Your task to perform on an android device: turn on improve location accuracy Image 0: 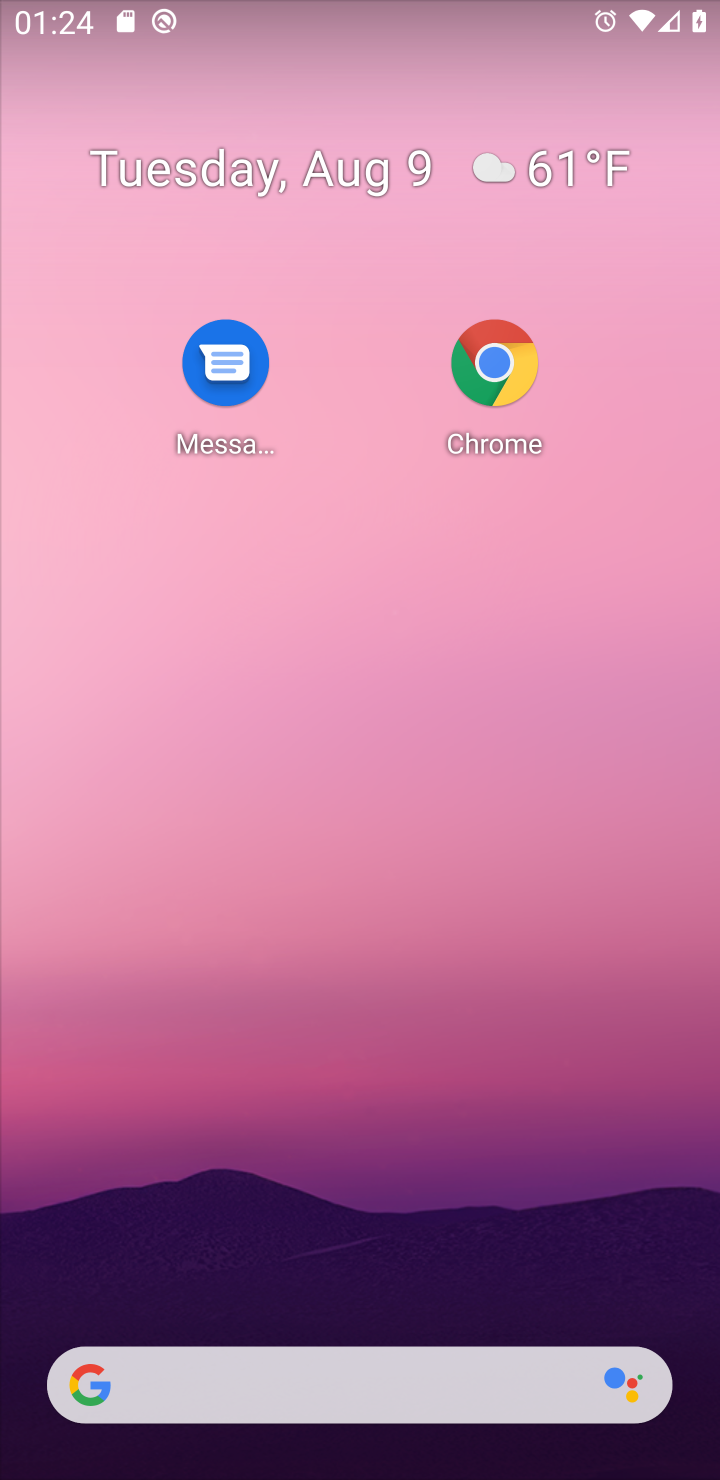
Step 0: press home button
Your task to perform on an android device: turn on improve location accuracy Image 1: 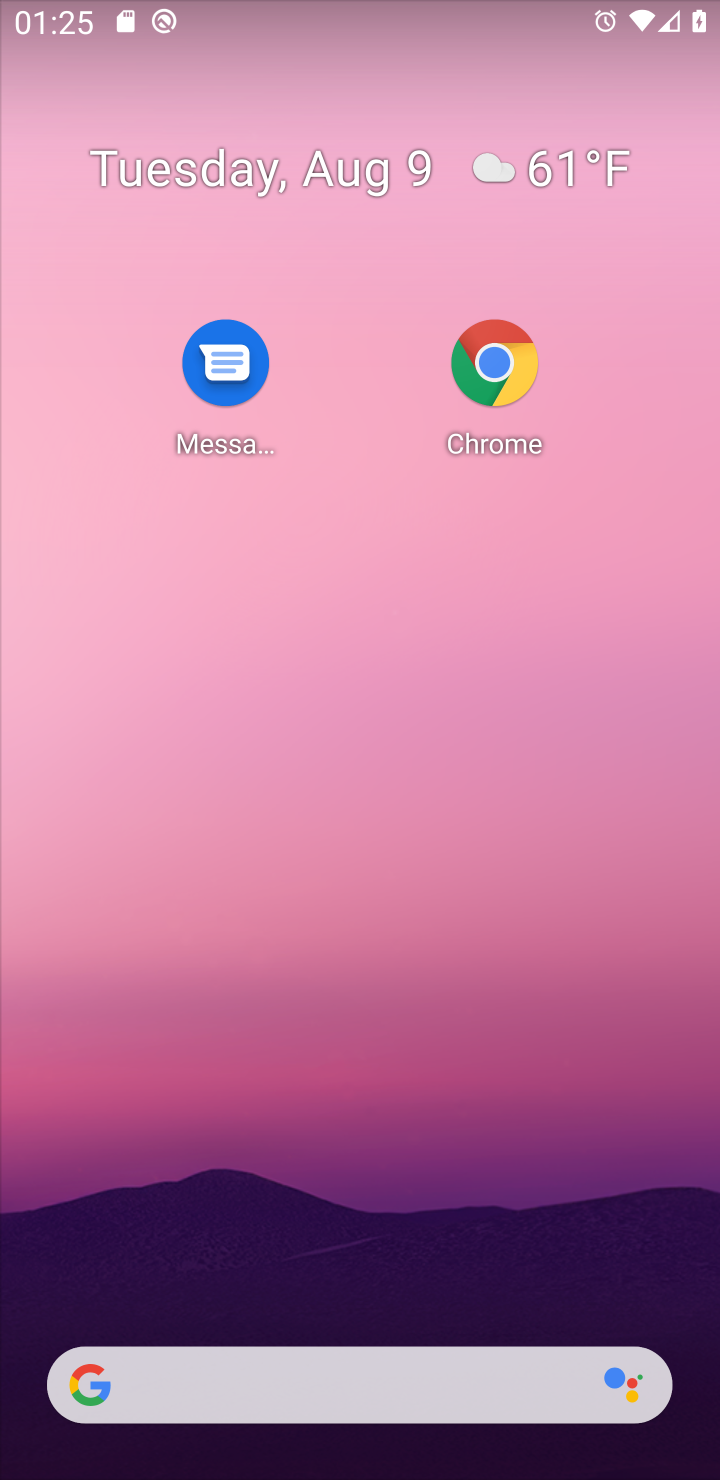
Step 1: drag from (428, 1228) to (447, 232)
Your task to perform on an android device: turn on improve location accuracy Image 2: 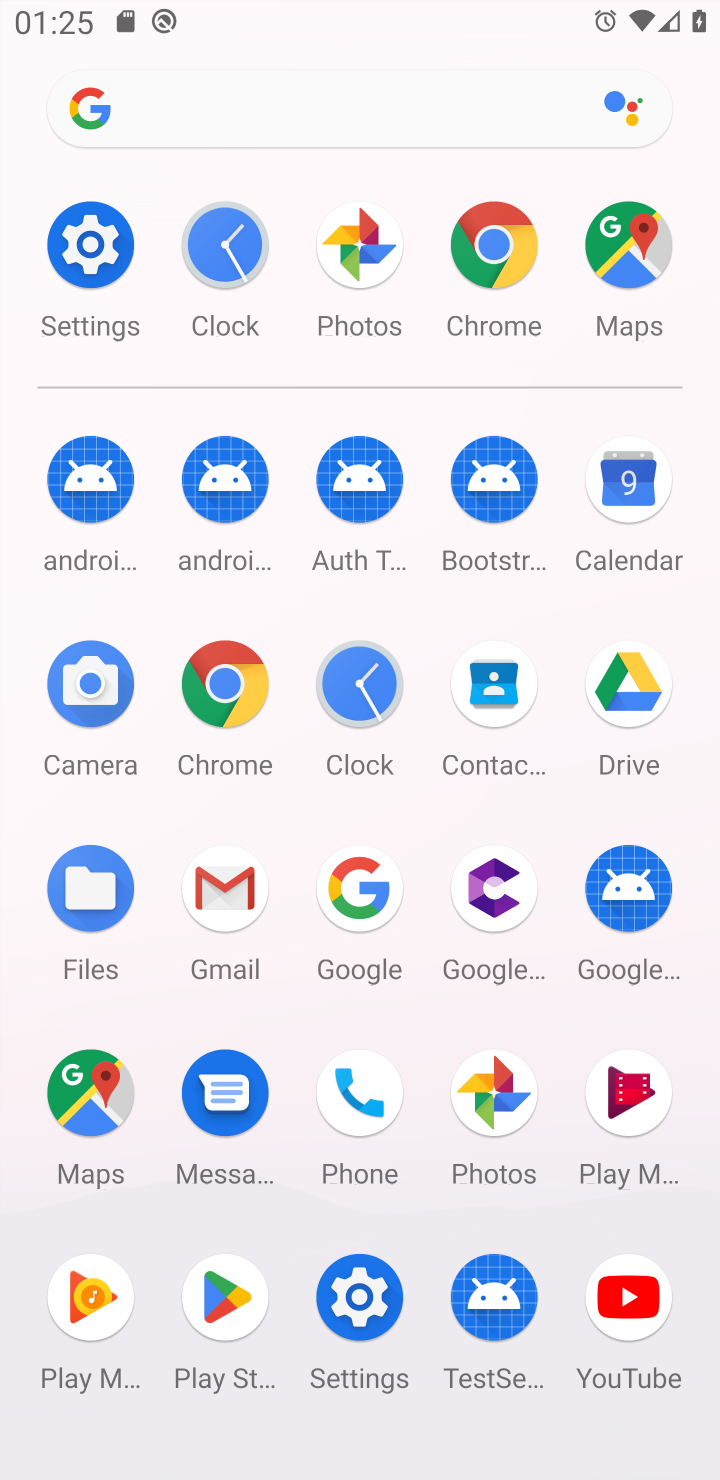
Step 2: click (115, 243)
Your task to perform on an android device: turn on improve location accuracy Image 3: 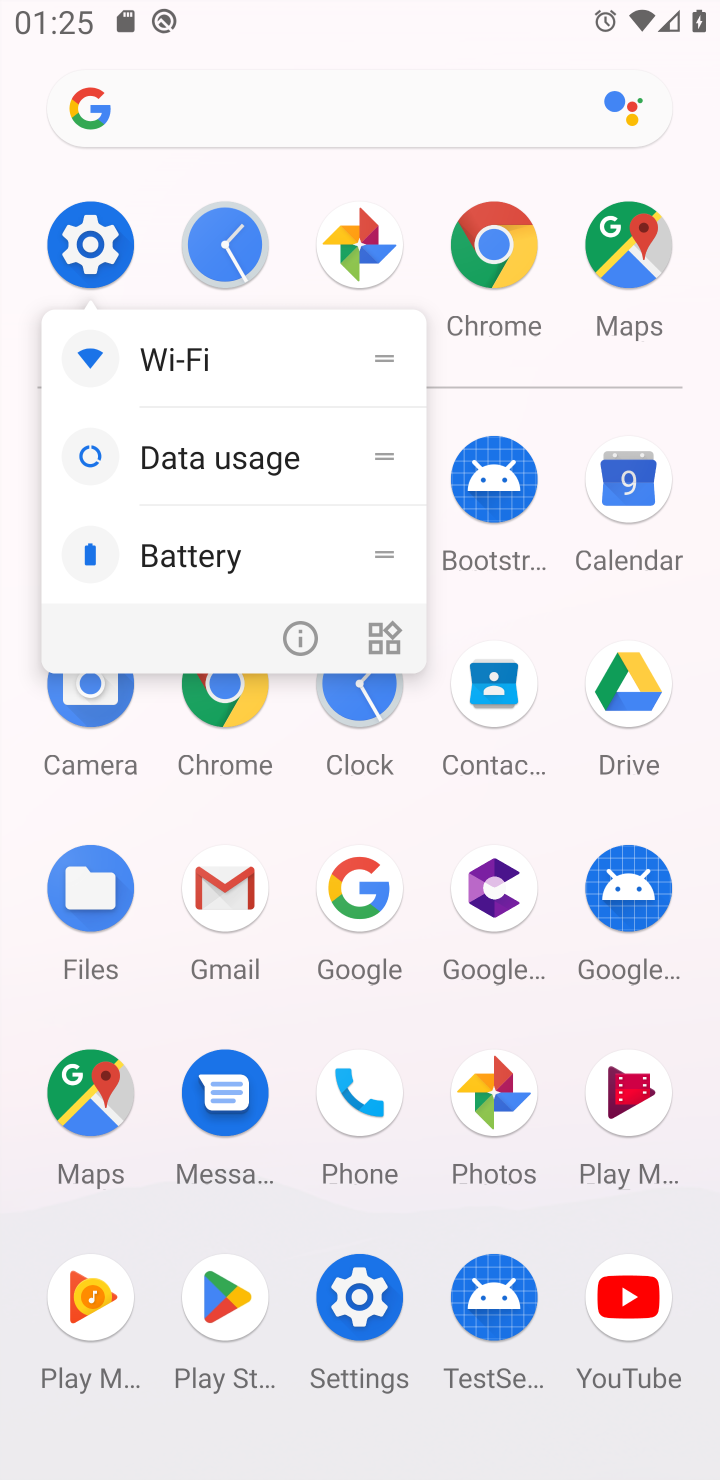
Step 3: click (96, 235)
Your task to perform on an android device: turn on improve location accuracy Image 4: 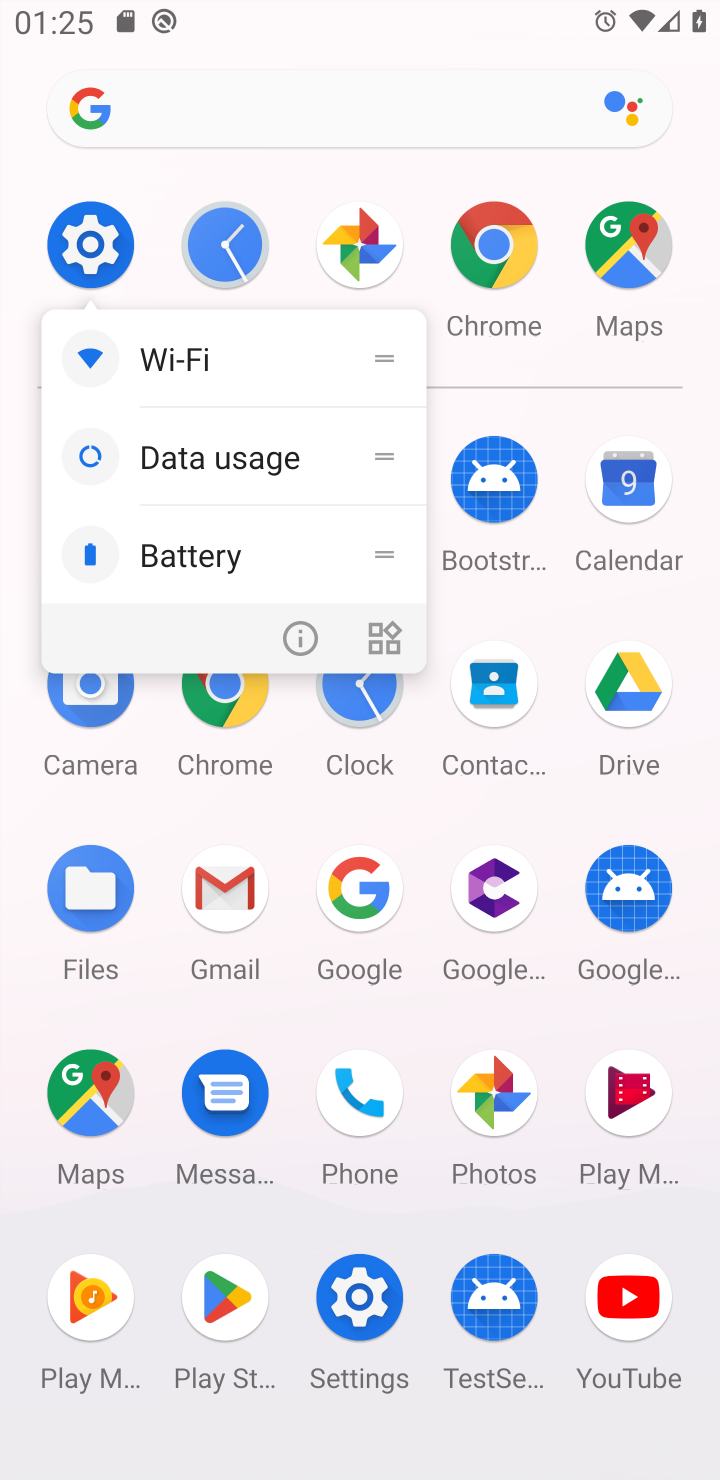
Step 4: click (96, 222)
Your task to perform on an android device: turn on improve location accuracy Image 5: 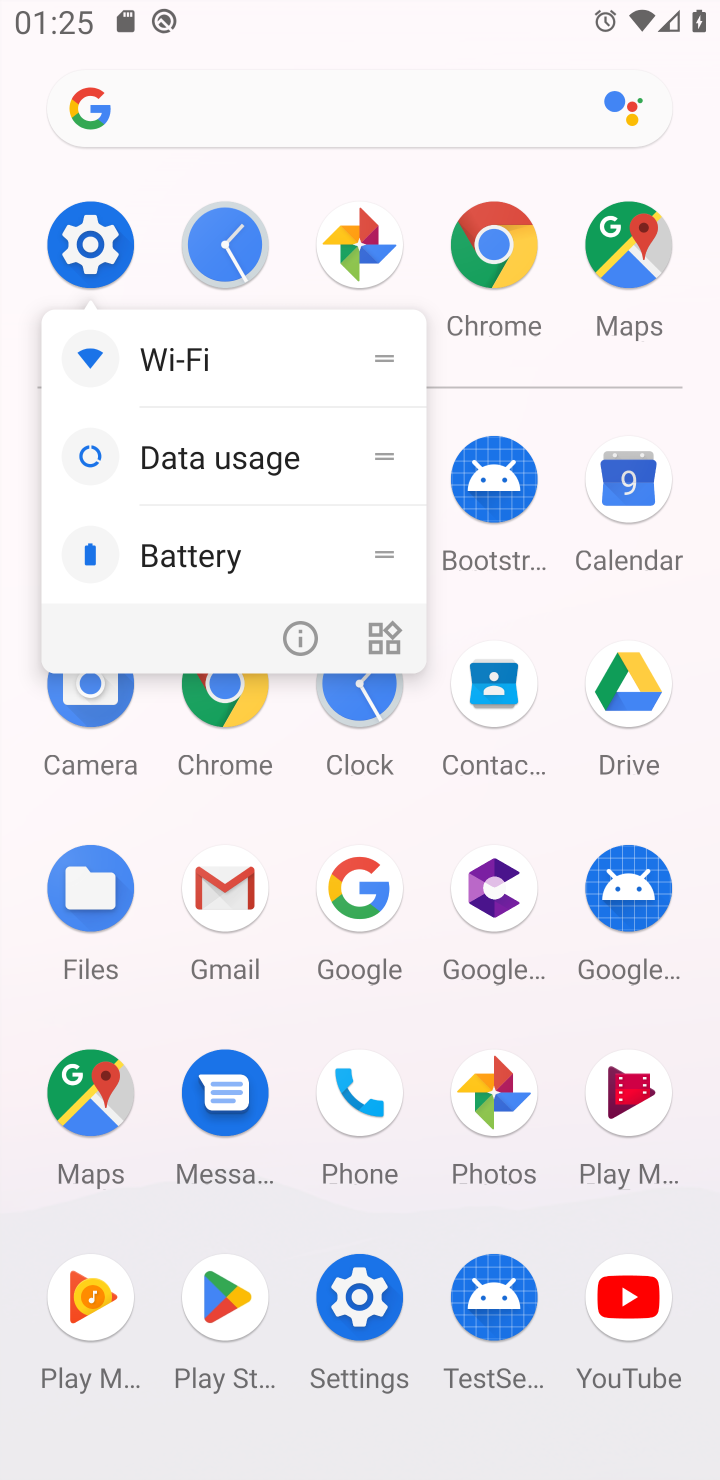
Step 5: click (96, 222)
Your task to perform on an android device: turn on improve location accuracy Image 6: 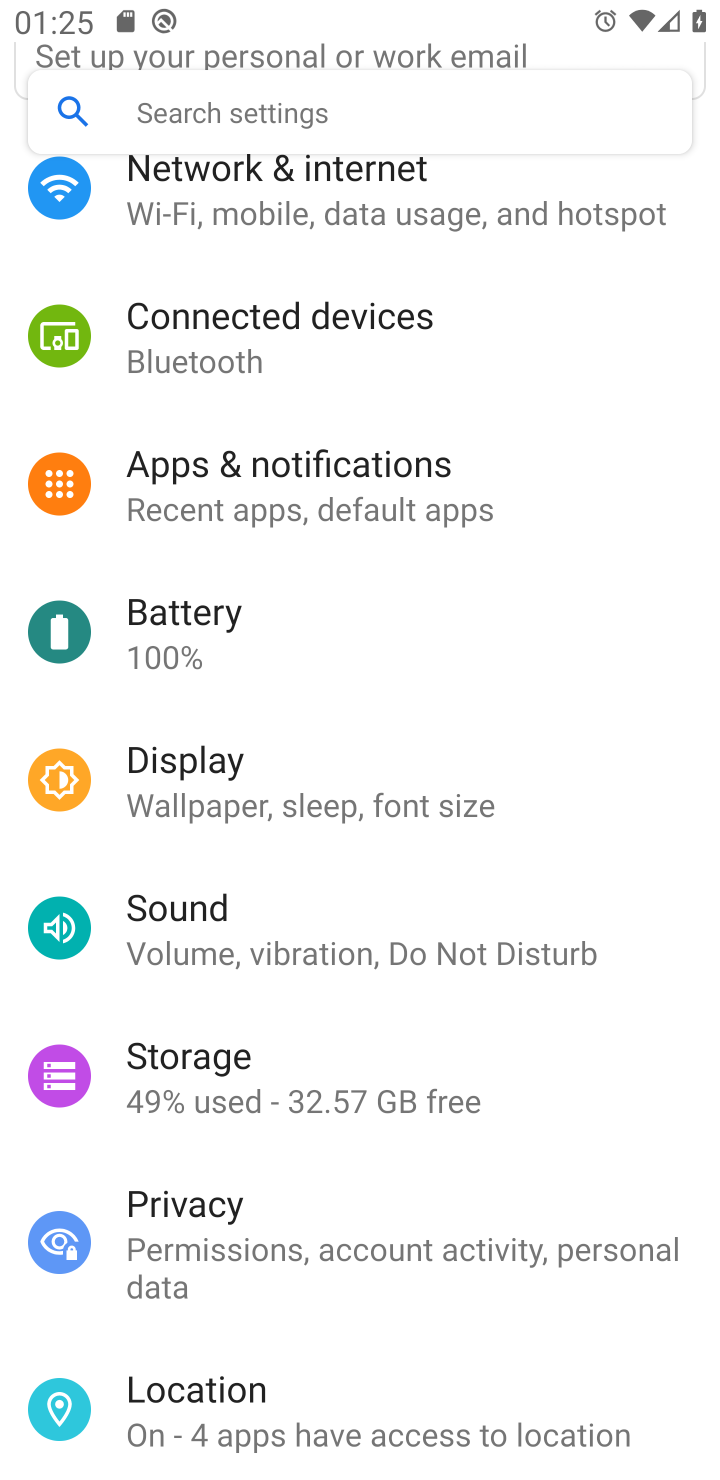
Step 6: click (264, 1398)
Your task to perform on an android device: turn on improve location accuracy Image 7: 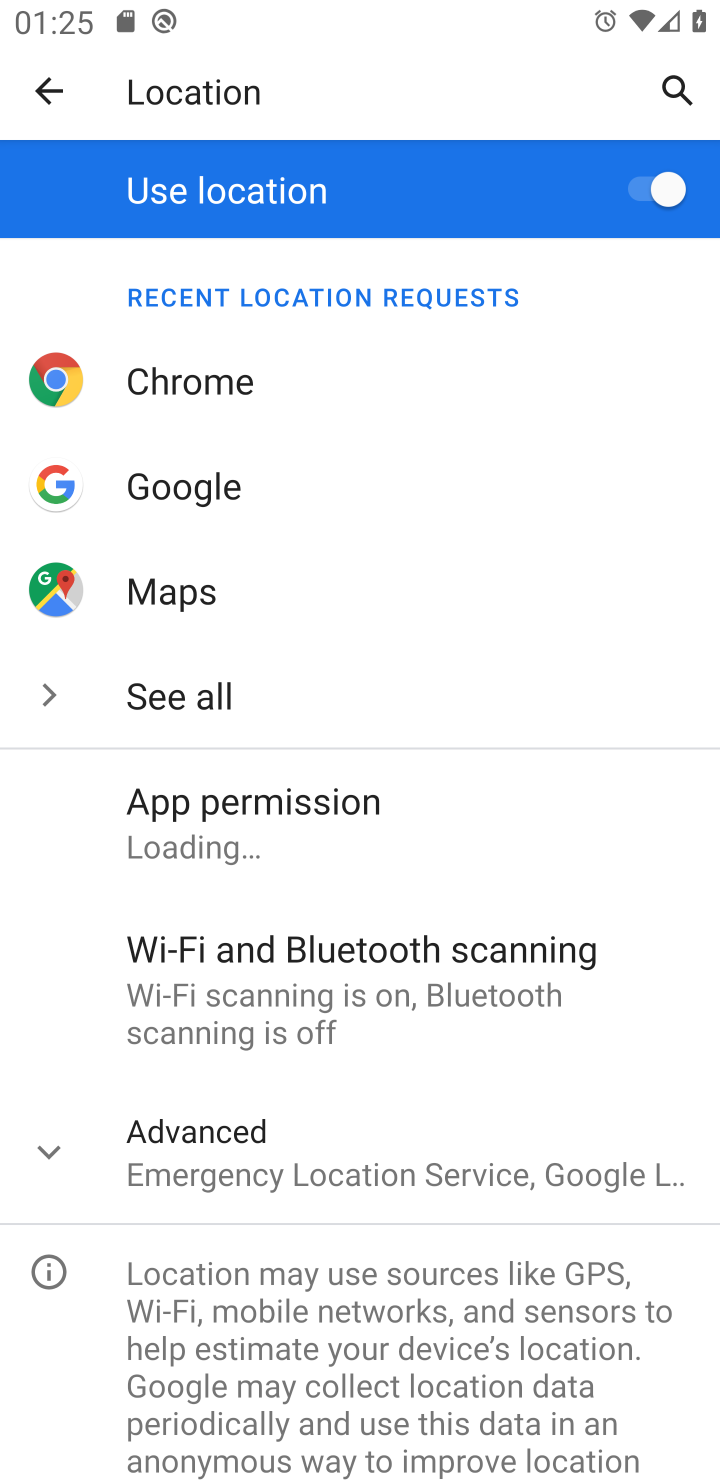
Step 7: click (368, 1101)
Your task to perform on an android device: turn on improve location accuracy Image 8: 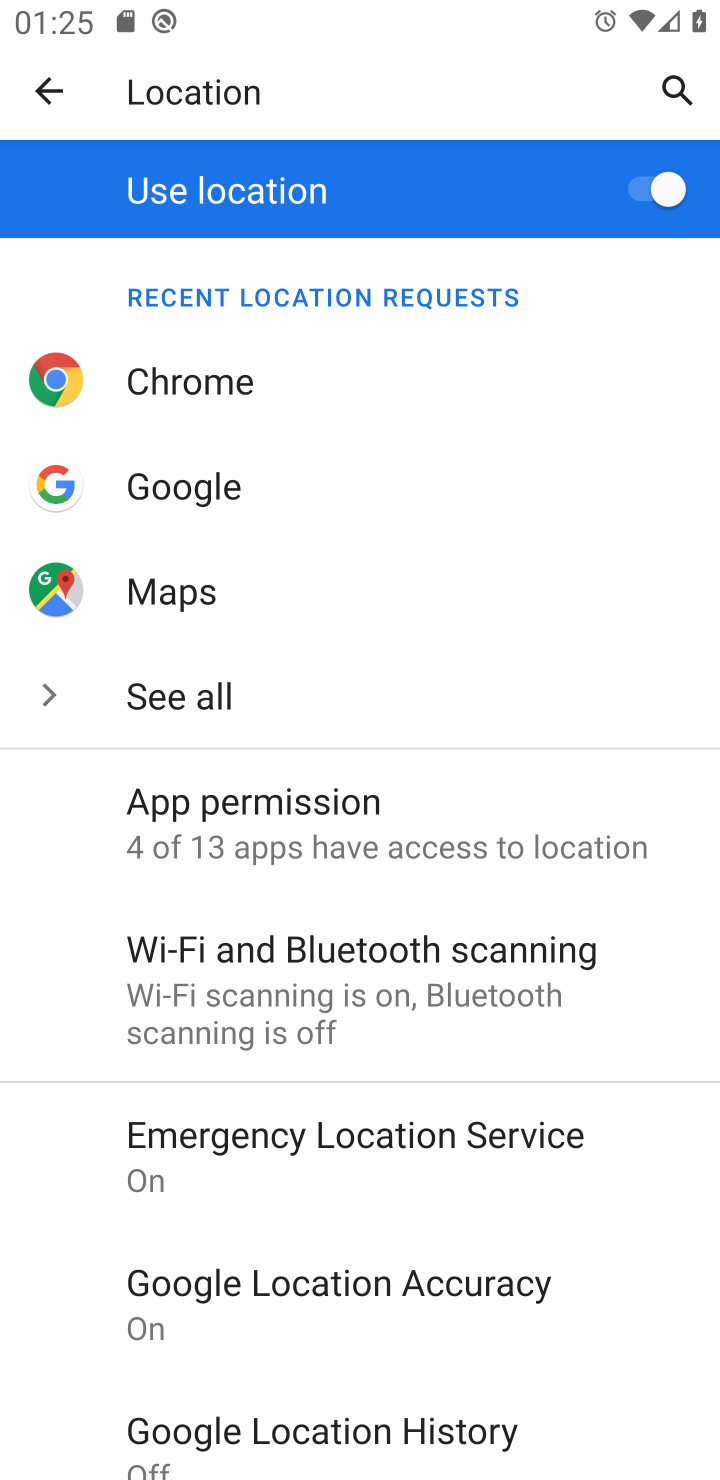
Step 8: click (428, 1313)
Your task to perform on an android device: turn on improve location accuracy Image 9: 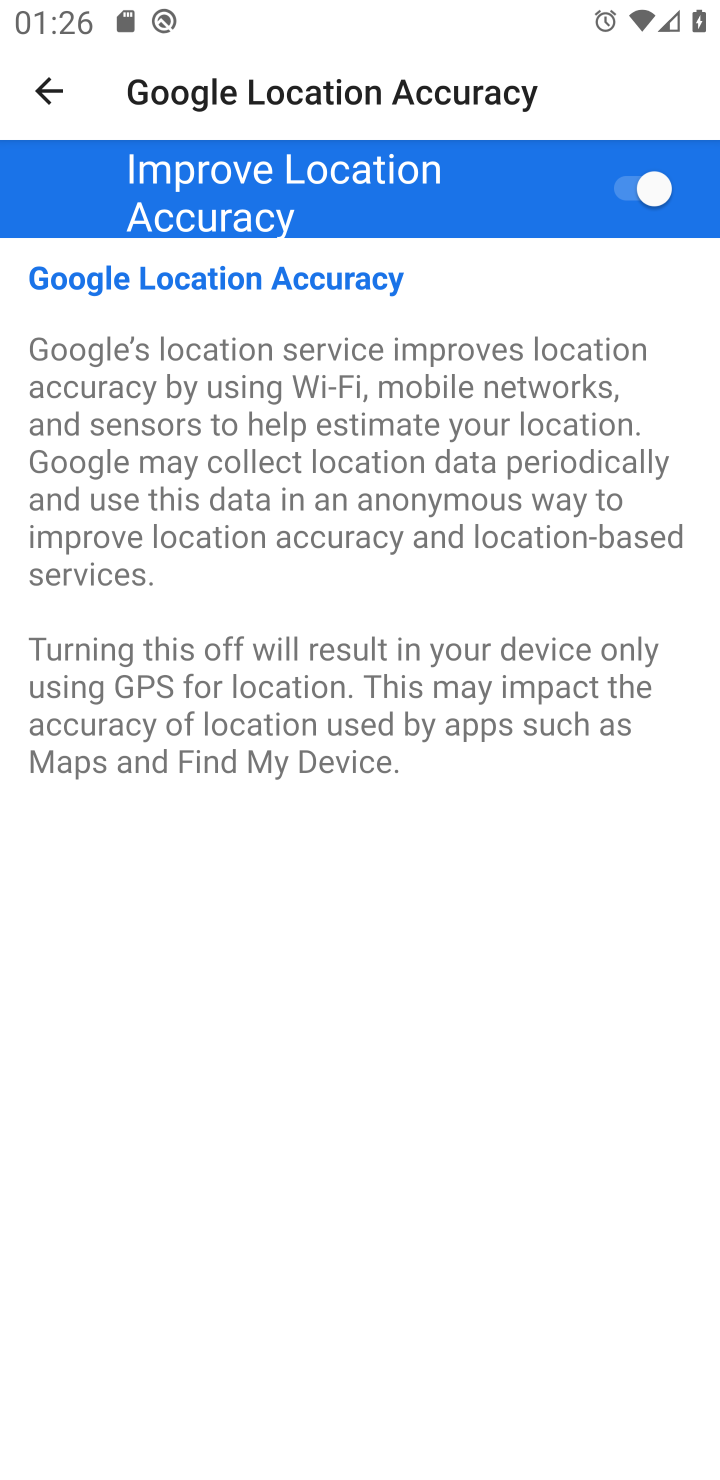
Step 9: task complete